Your task to perform on an android device: make emails show in primary in the gmail app Image 0: 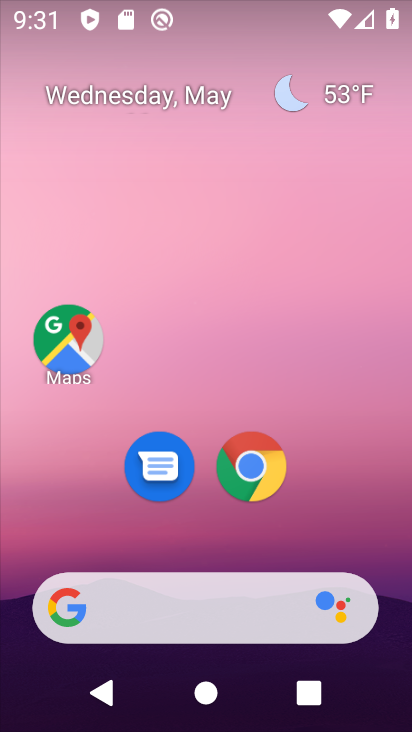
Step 0: drag from (207, 562) to (191, 171)
Your task to perform on an android device: make emails show in primary in the gmail app Image 1: 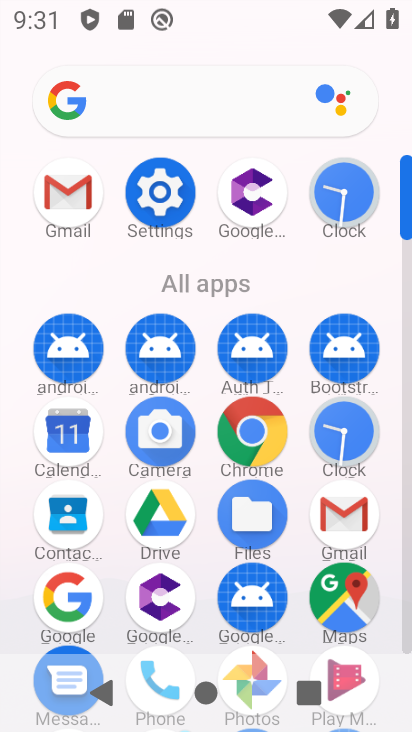
Step 1: drag from (210, 649) to (210, 217)
Your task to perform on an android device: make emails show in primary in the gmail app Image 2: 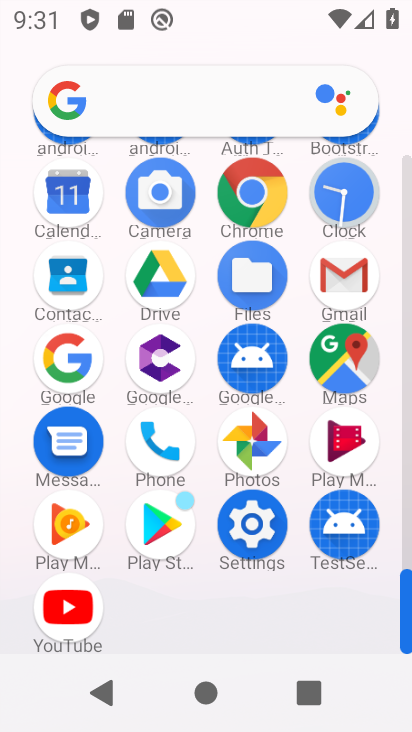
Step 2: click (327, 271)
Your task to perform on an android device: make emails show in primary in the gmail app Image 3: 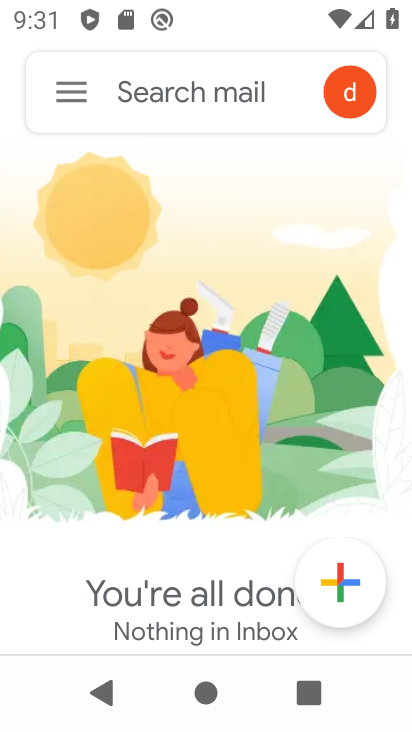
Step 3: drag from (240, 581) to (300, 201)
Your task to perform on an android device: make emails show in primary in the gmail app Image 4: 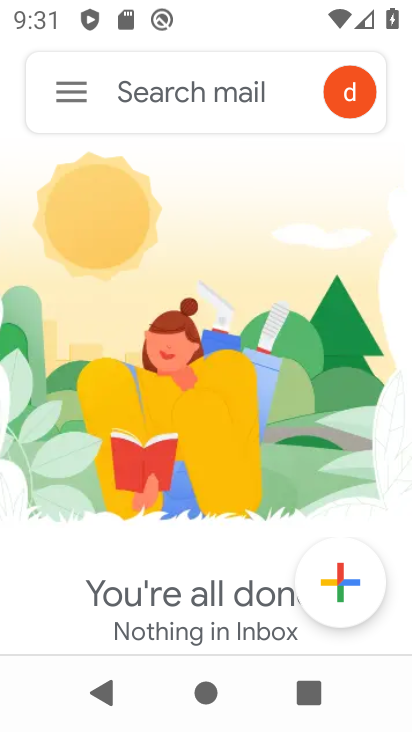
Step 4: click (74, 96)
Your task to perform on an android device: make emails show in primary in the gmail app Image 5: 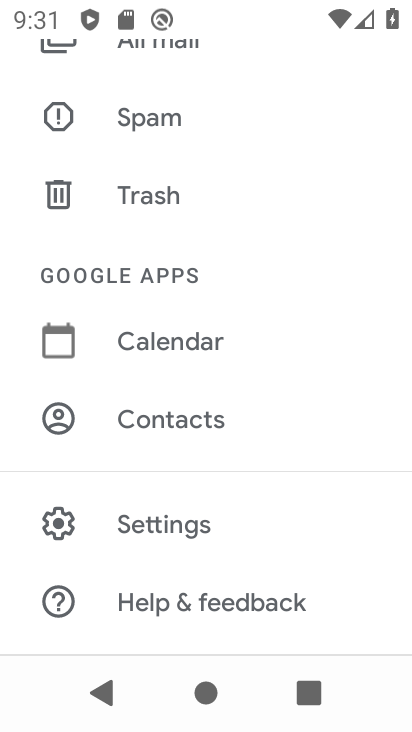
Step 5: drag from (240, 232) to (296, 721)
Your task to perform on an android device: make emails show in primary in the gmail app Image 6: 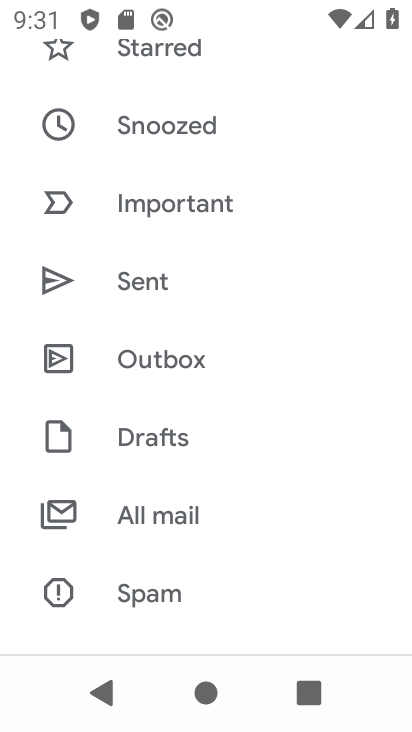
Step 6: drag from (217, 182) to (237, 661)
Your task to perform on an android device: make emails show in primary in the gmail app Image 7: 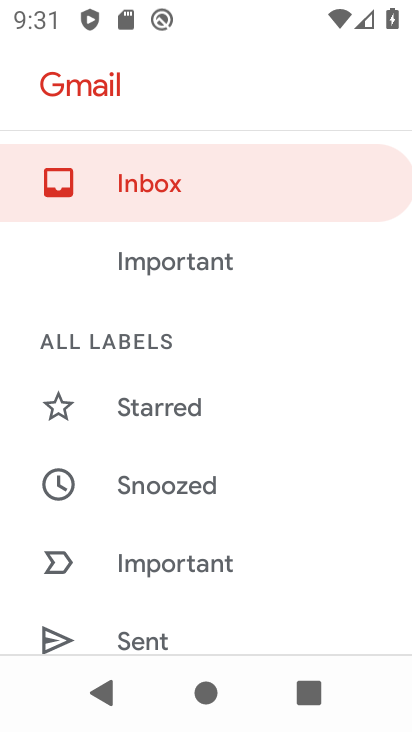
Step 7: click (232, 180)
Your task to perform on an android device: make emails show in primary in the gmail app Image 8: 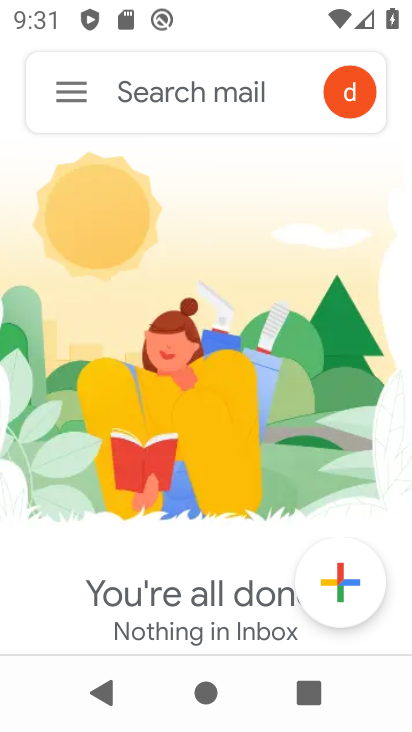
Step 8: click (64, 105)
Your task to perform on an android device: make emails show in primary in the gmail app Image 9: 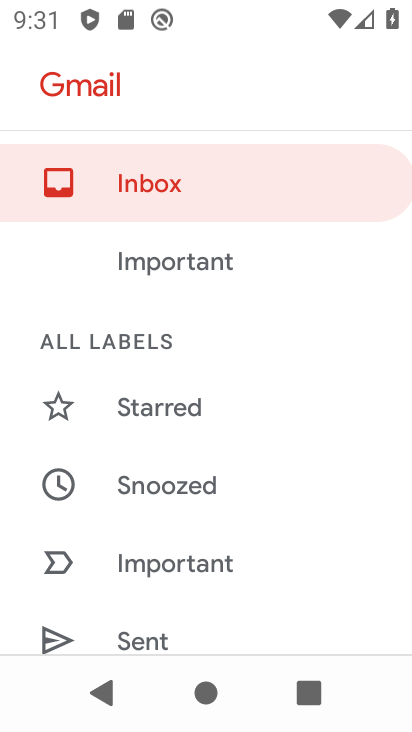
Step 9: click (176, 185)
Your task to perform on an android device: make emails show in primary in the gmail app Image 10: 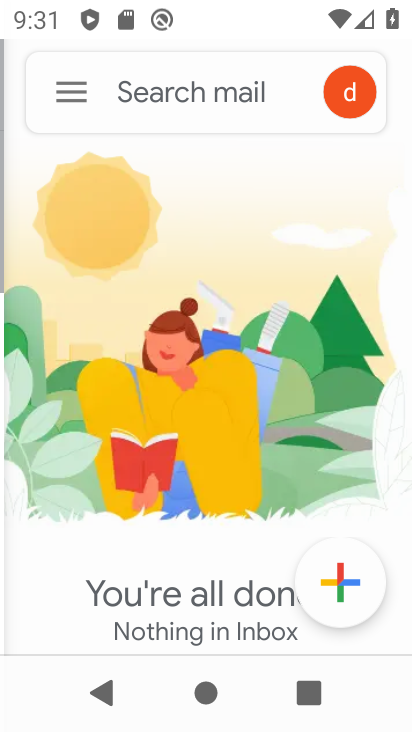
Step 10: task complete